Your task to perform on an android device: Go to Yahoo.com Image 0: 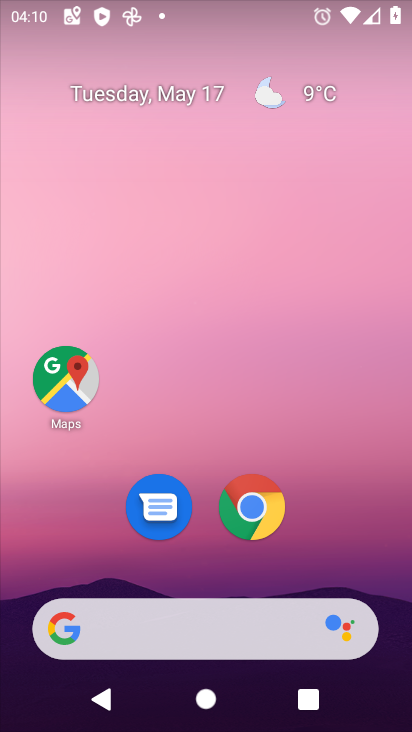
Step 0: click (261, 502)
Your task to perform on an android device: Go to Yahoo.com Image 1: 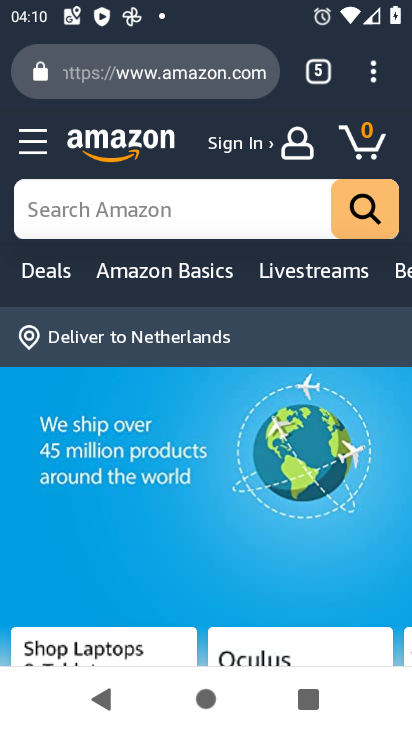
Step 1: click (311, 69)
Your task to perform on an android device: Go to Yahoo.com Image 2: 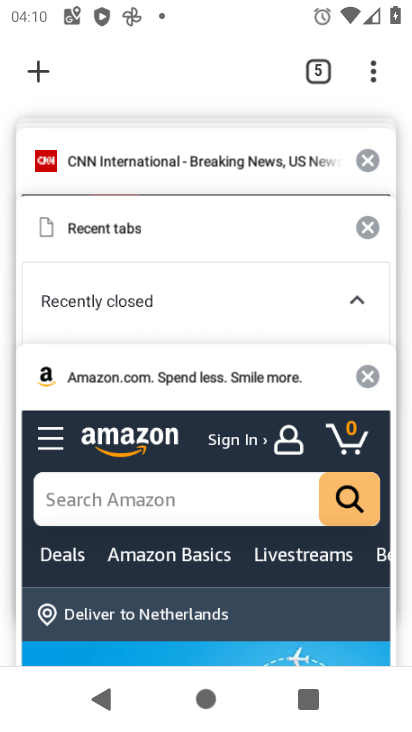
Step 2: drag from (218, 201) to (206, 522)
Your task to perform on an android device: Go to Yahoo.com Image 3: 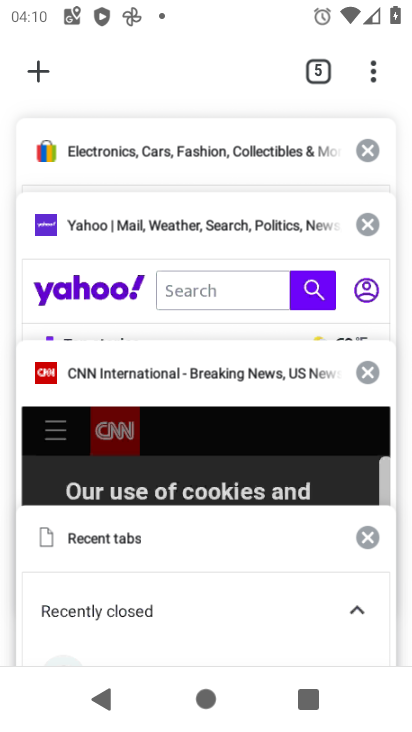
Step 3: click (103, 240)
Your task to perform on an android device: Go to Yahoo.com Image 4: 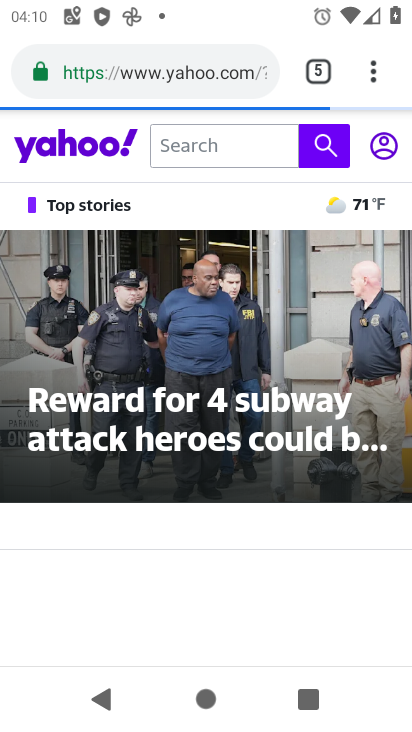
Step 4: task complete